Your task to perform on an android device: star an email in the gmail app Image 0: 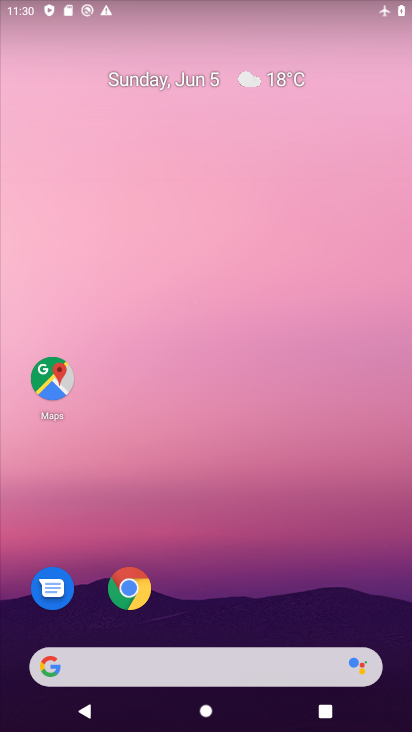
Step 0: drag from (219, 611) to (159, 199)
Your task to perform on an android device: star an email in the gmail app Image 1: 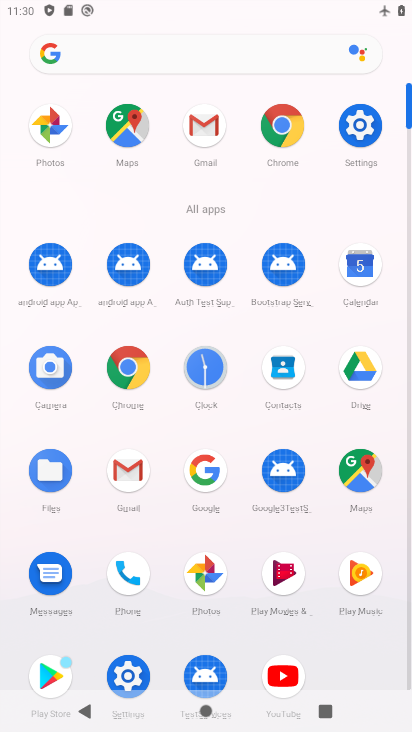
Step 1: click (199, 130)
Your task to perform on an android device: star an email in the gmail app Image 2: 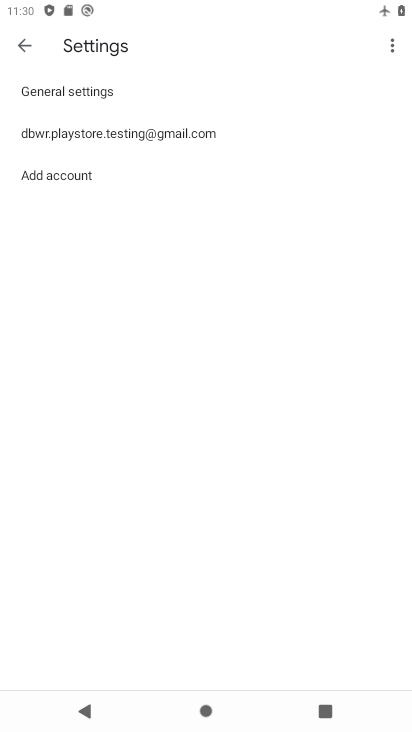
Step 2: click (29, 45)
Your task to perform on an android device: star an email in the gmail app Image 3: 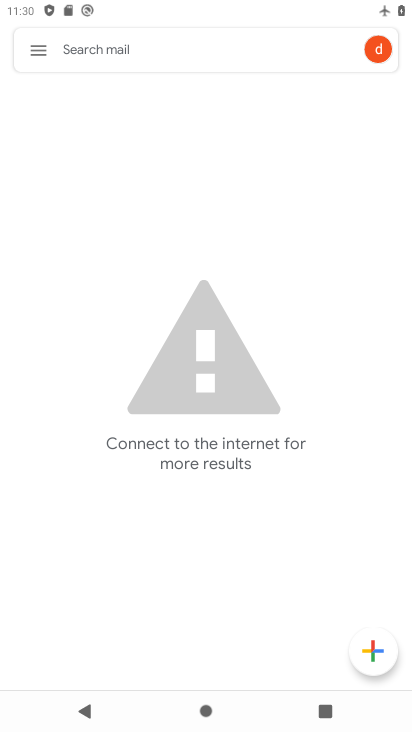
Step 3: click (32, 46)
Your task to perform on an android device: star an email in the gmail app Image 4: 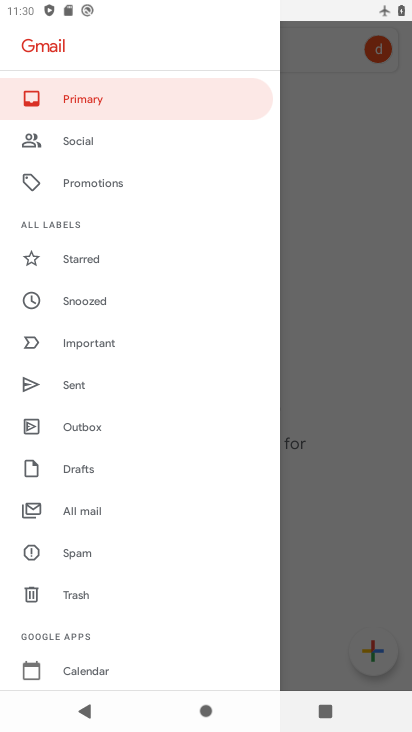
Step 4: click (149, 513)
Your task to perform on an android device: star an email in the gmail app Image 5: 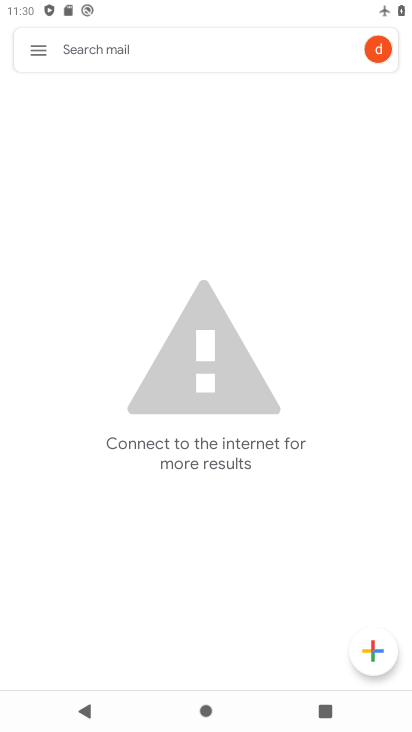
Step 5: task complete